Your task to perform on an android device: turn off sleep mode Image 0: 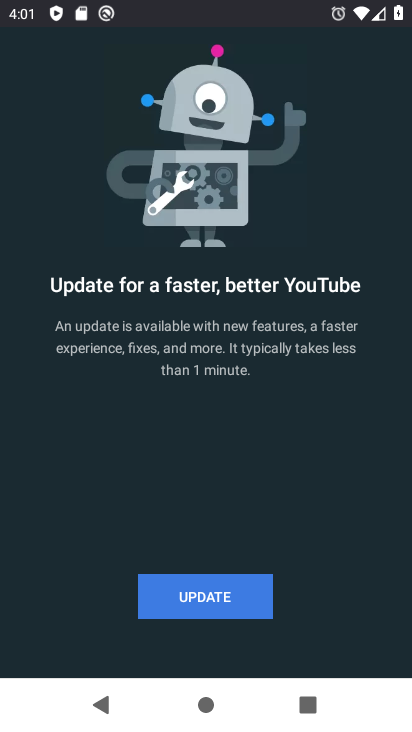
Step 0: press home button
Your task to perform on an android device: turn off sleep mode Image 1: 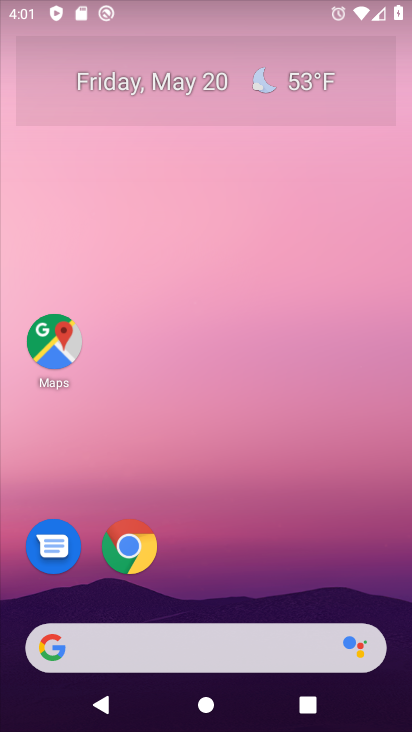
Step 1: drag from (266, 549) to (294, 143)
Your task to perform on an android device: turn off sleep mode Image 2: 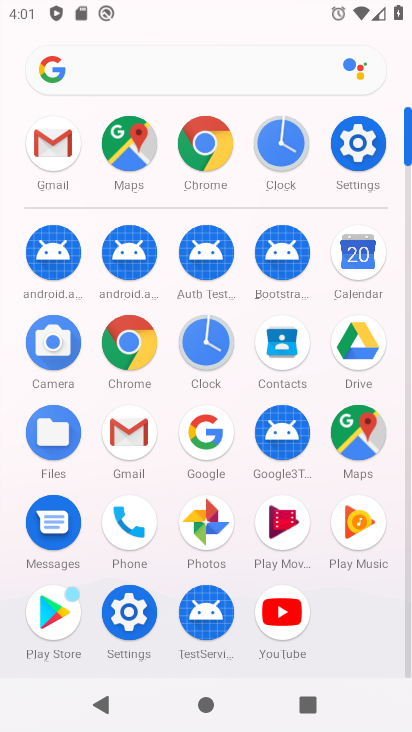
Step 2: click (366, 123)
Your task to perform on an android device: turn off sleep mode Image 3: 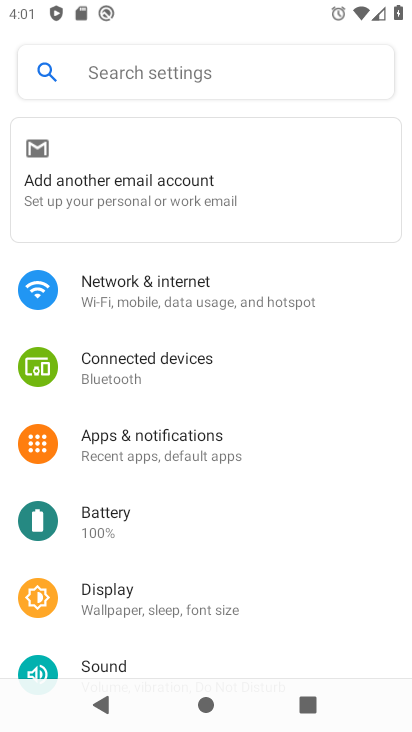
Step 3: drag from (169, 532) to (239, 199)
Your task to perform on an android device: turn off sleep mode Image 4: 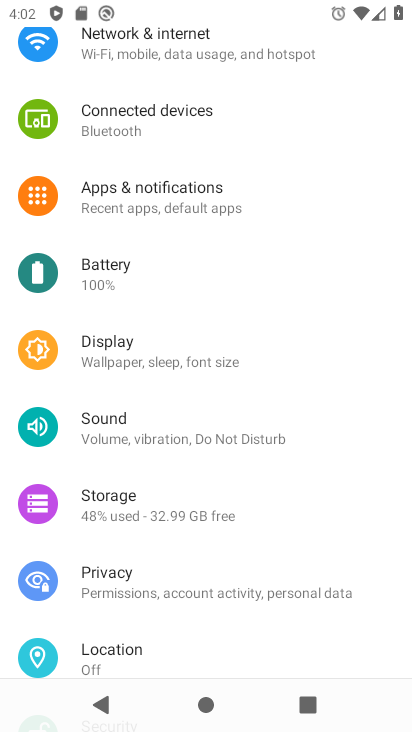
Step 4: click (110, 348)
Your task to perform on an android device: turn off sleep mode Image 5: 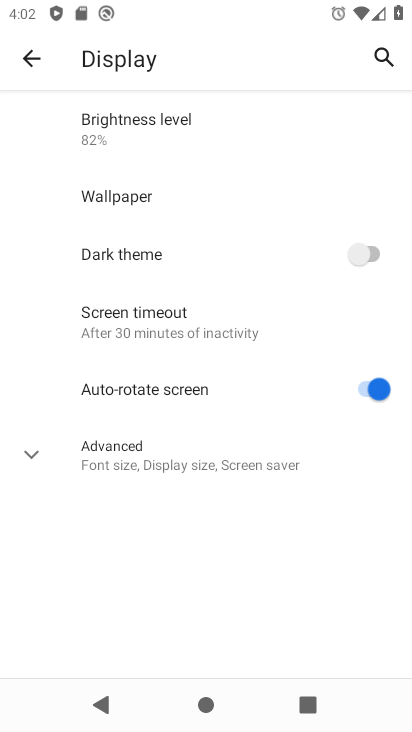
Step 5: click (196, 322)
Your task to perform on an android device: turn off sleep mode Image 6: 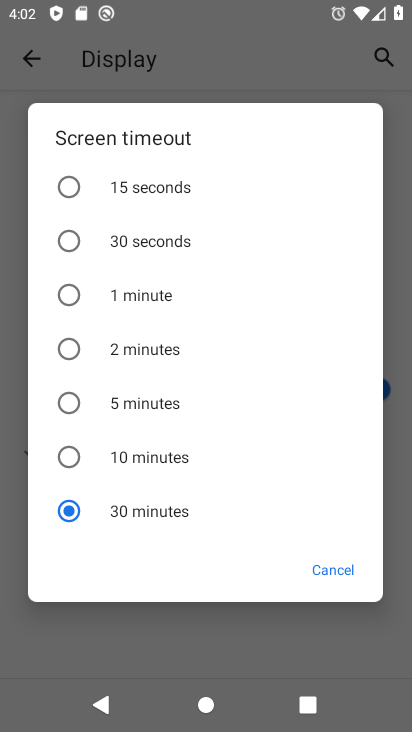
Step 6: task complete